Your task to perform on an android device: Open Wikipedia Image 0: 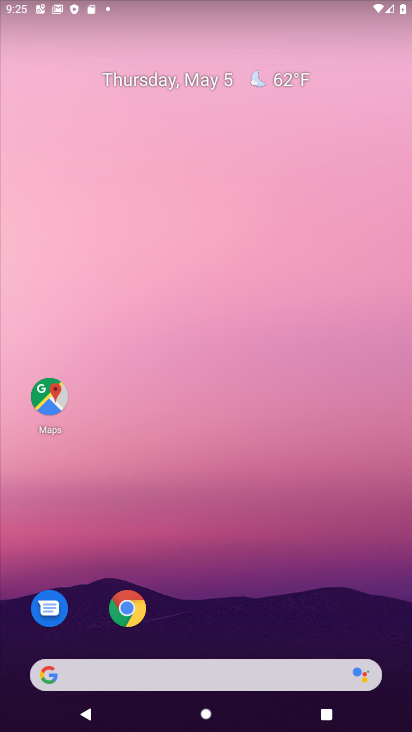
Step 0: drag from (287, 595) to (196, 9)
Your task to perform on an android device: Open Wikipedia Image 1: 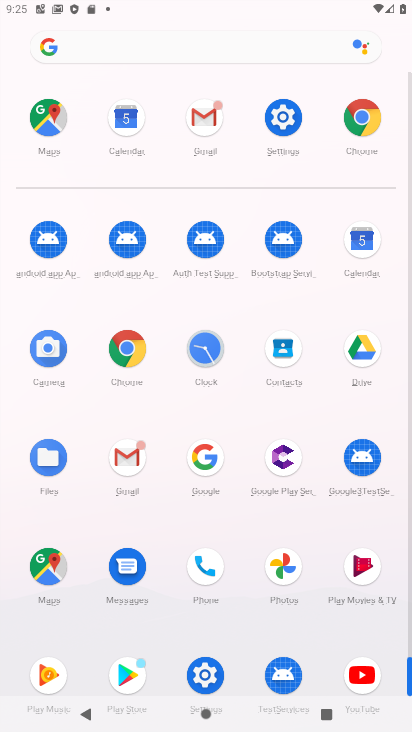
Step 1: drag from (4, 552) to (28, 256)
Your task to perform on an android device: Open Wikipedia Image 2: 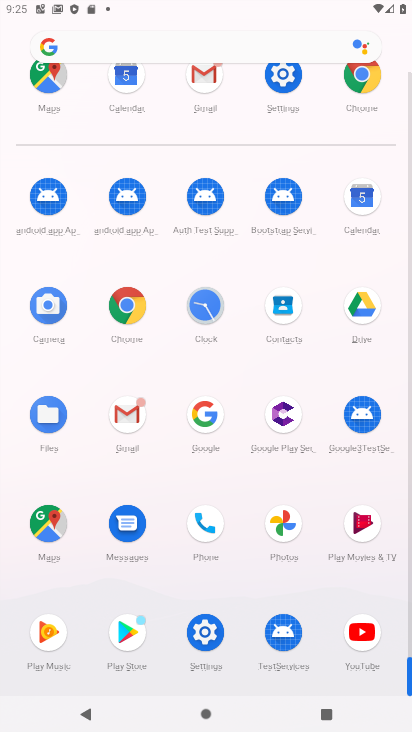
Step 2: click (129, 298)
Your task to perform on an android device: Open Wikipedia Image 3: 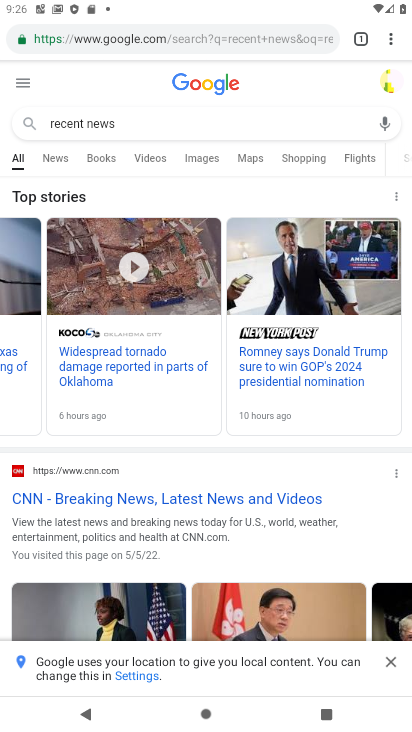
Step 3: click (213, 38)
Your task to perform on an android device: Open Wikipedia Image 4: 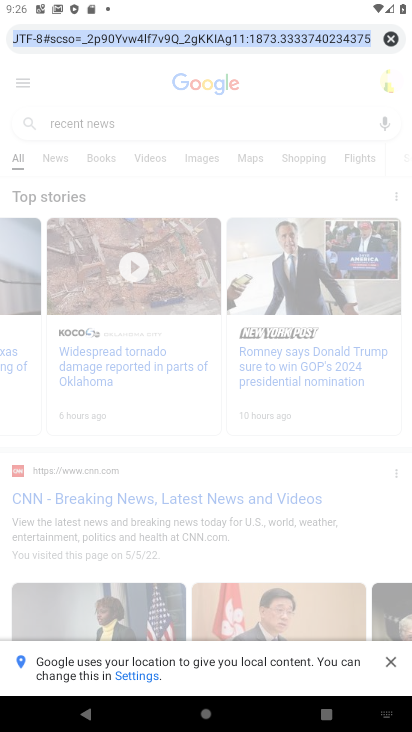
Step 4: click (389, 39)
Your task to perform on an android device: Open Wikipedia Image 5: 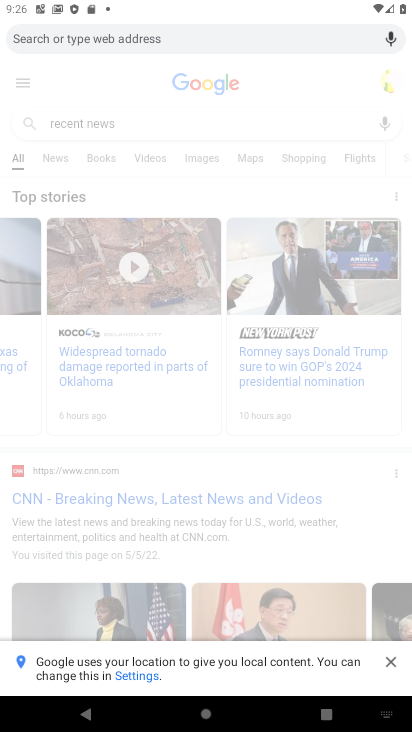
Step 5: type "Wikipedia"
Your task to perform on an android device: Open Wikipedia Image 6: 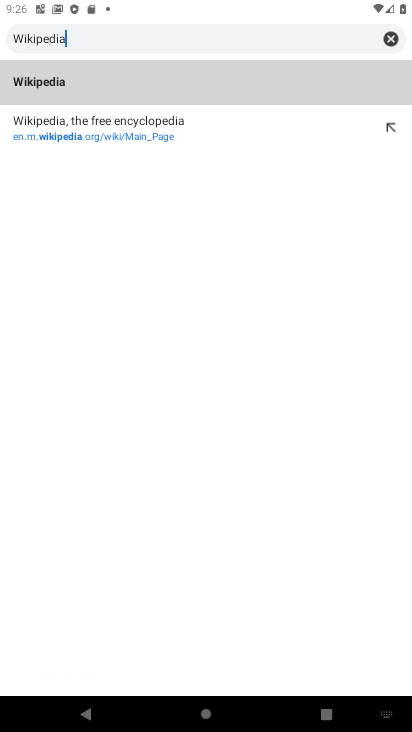
Step 6: click (147, 123)
Your task to perform on an android device: Open Wikipedia Image 7: 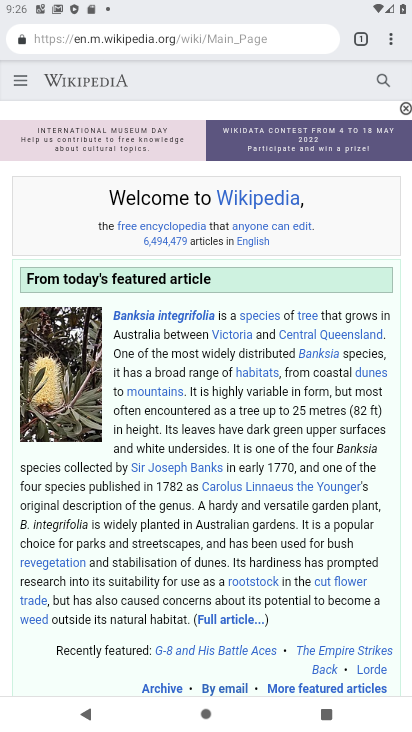
Step 7: task complete